Your task to perform on an android device: turn on the 12-hour format for clock Image 0: 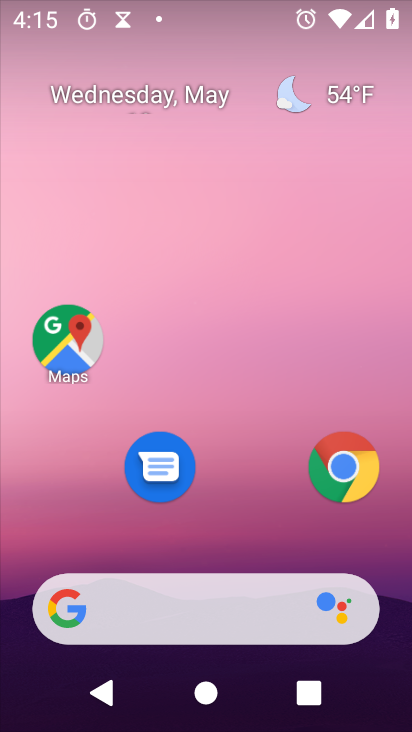
Step 0: drag from (266, 528) to (193, 12)
Your task to perform on an android device: turn on the 12-hour format for clock Image 1: 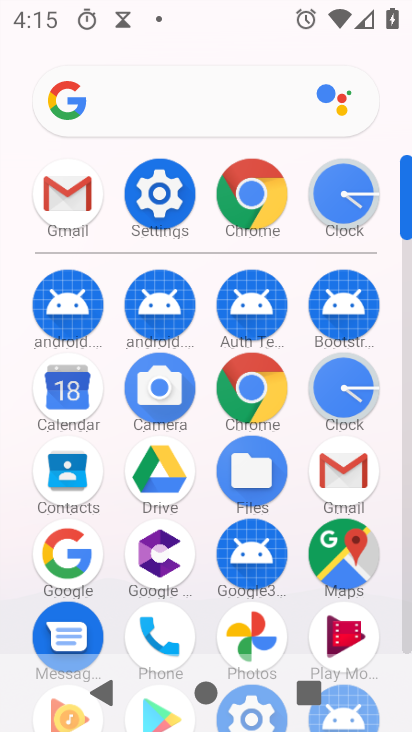
Step 1: click (336, 179)
Your task to perform on an android device: turn on the 12-hour format for clock Image 2: 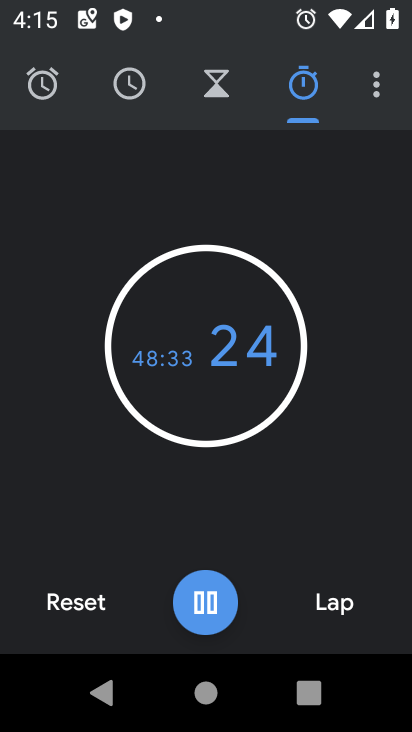
Step 2: click (385, 89)
Your task to perform on an android device: turn on the 12-hour format for clock Image 3: 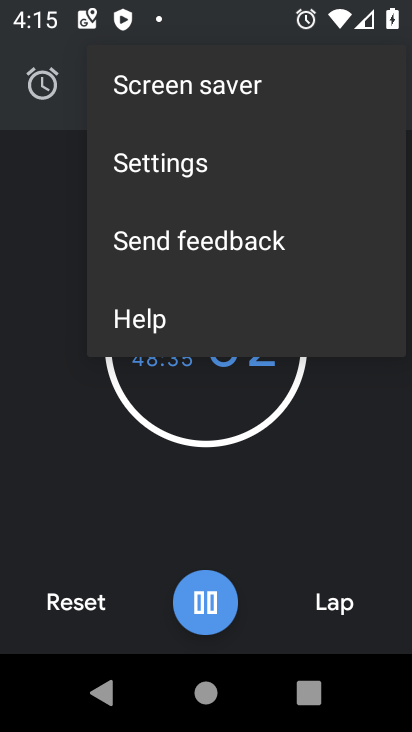
Step 3: click (303, 170)
Your task to perform on an android device: turn on the 12-hour format for clock Image 4: 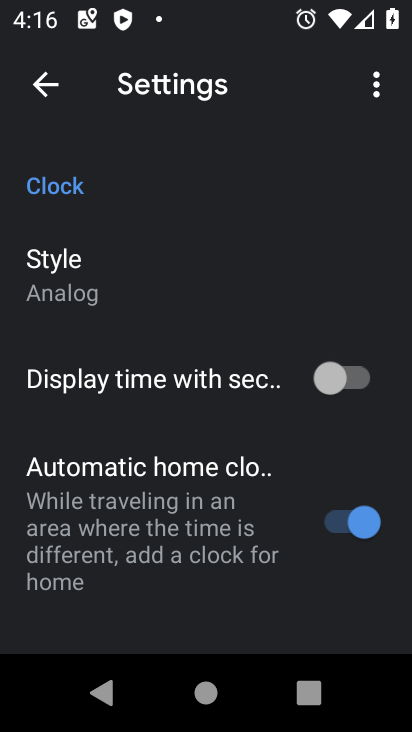
Step 4: drag from (284, 518) to (240, 75)
Your task to perform on an android device: turn on the 12-hour format for clock Image 5: 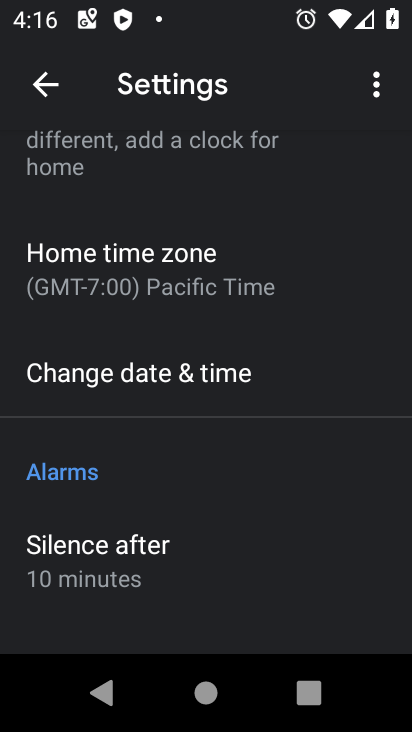
Step 5: click (277, 392)
Your task to perform on an android device: turn on the 12-hour format for clock Image 6: 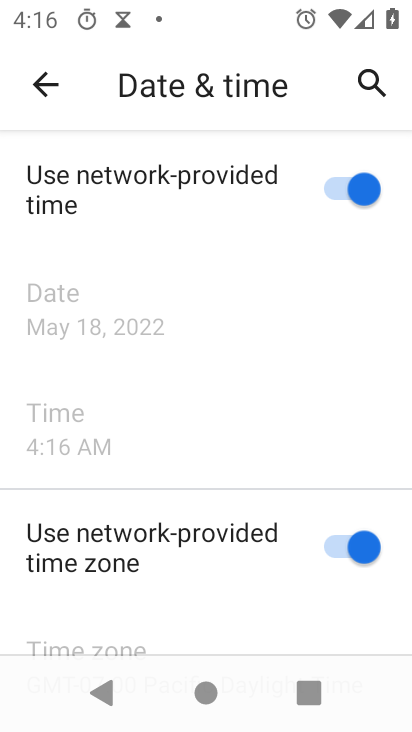
Step 6: task complete